Your task to perform on an android device: Go to notification settings Image 0: 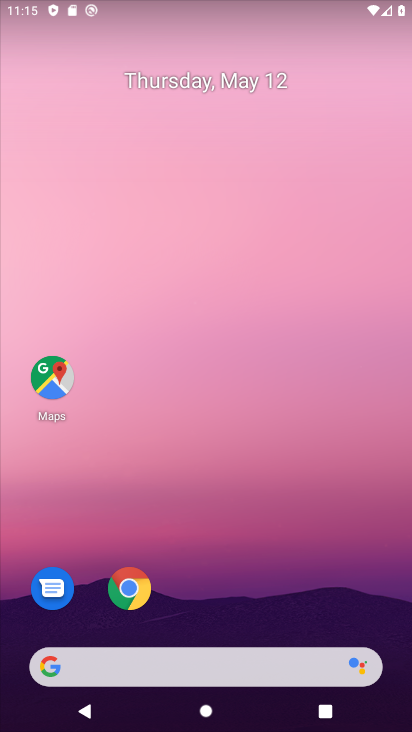
Step 0: drag from (169, 629) to (180, 194)
Your task to perform on an android device: Go to notification settings Image 1: 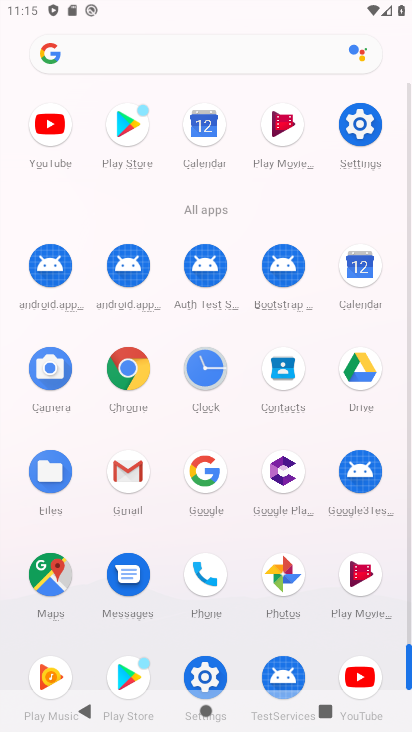
Step 1: click (210, 676)
Your task to perform on an android device: Go to notification settings Image 2: 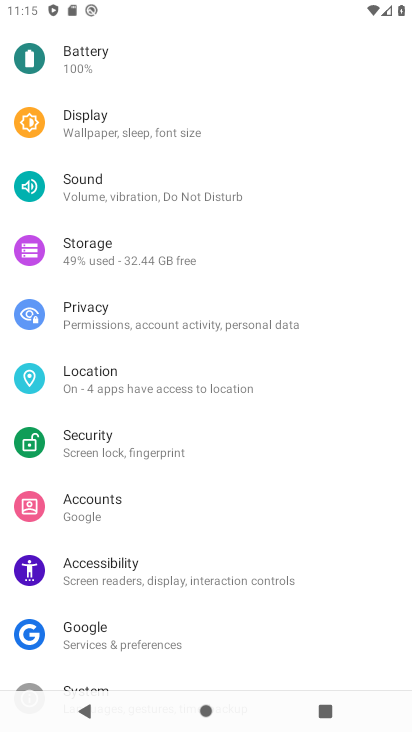
Step 2: drag from (209, 164) to (259, 632)
Your task to perform on an android device: Go to notification settings Image 3: 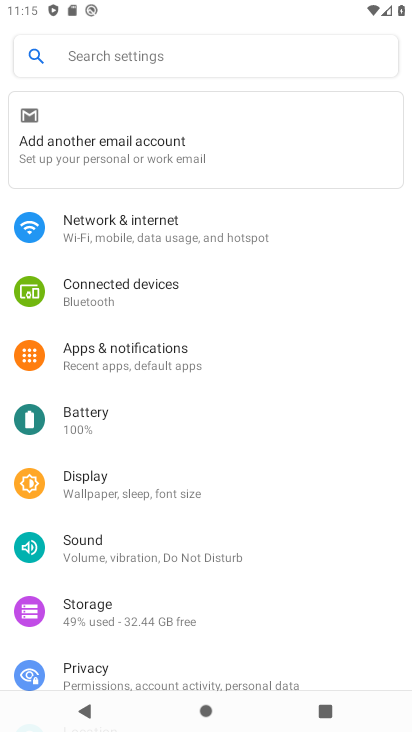
Step 3: click (143, 346)
Your task to perform on an android device: Go to notification settings Image 4: 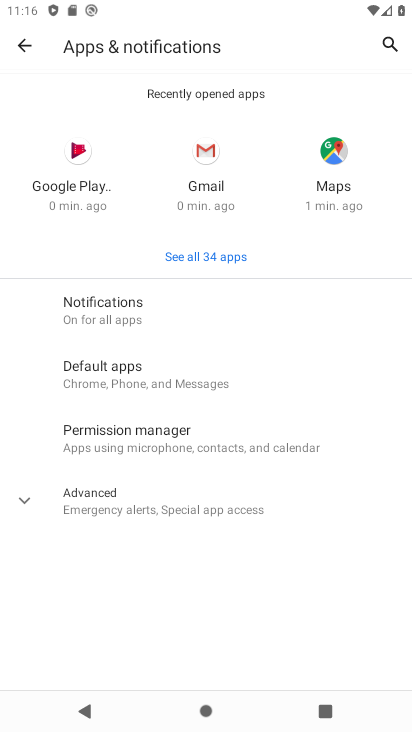
Step 4: click (152, 317)
Your task to perform on an android device: Go to notification settings Image 5: 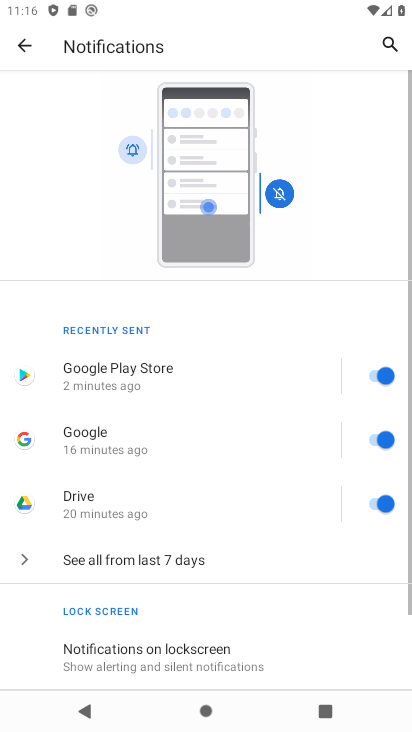
Step 5: task complete